Your task to perform on an android device: turn on priority inbox in the gmail app Image 0: 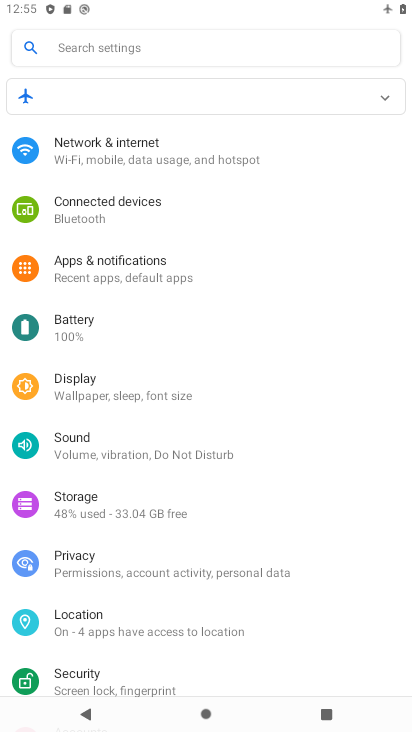
Step 0: press home button
Your task to perform on an android device: turn on priority inbox in the gmail app Image 1: 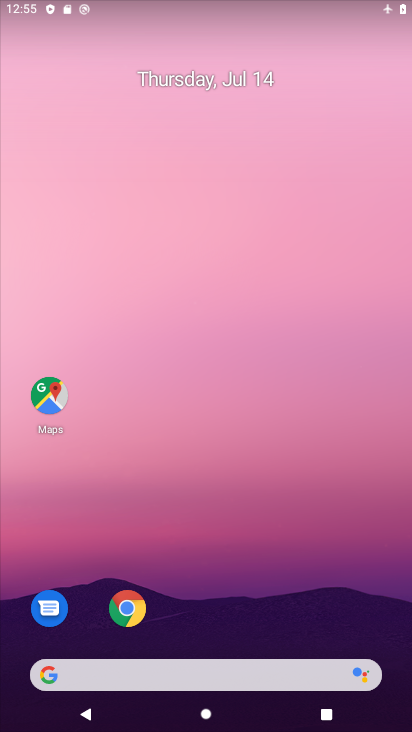
Step 1: drag from (131, 652) to (154, 233)
Your task to perform on an android device: turn on priority inbox in the gmail app Image 2: 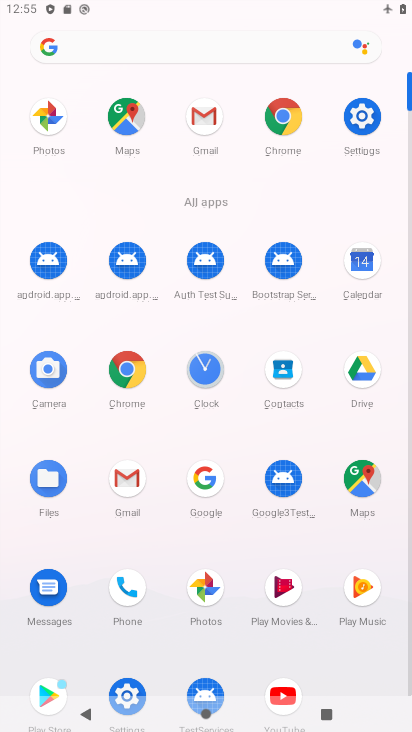
Step 2: click (202, 124)
Your task to perform on an android device: turn on priority inbox in the gmail app Image 3: 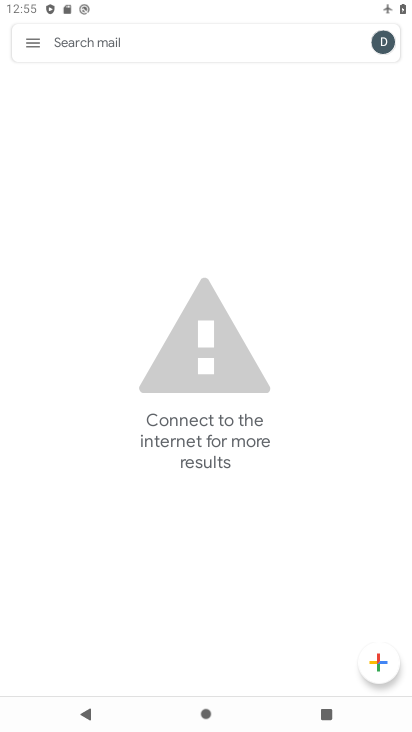
Step 3: click (25, 42)
Your task to perform on an android device: turn on priority inbox in the gmail app Image 4: 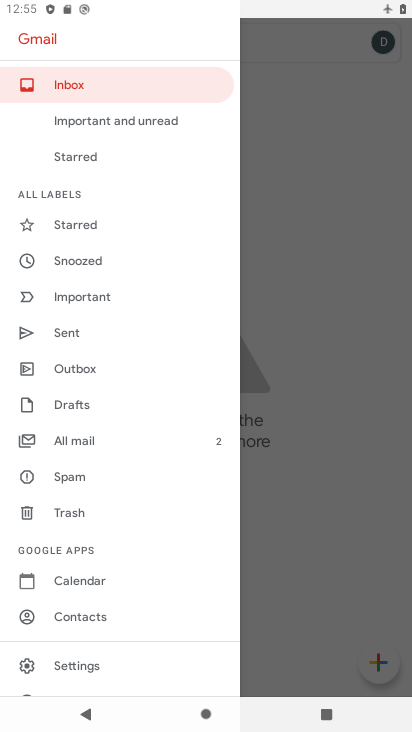
Step 4: click (81, 660)
Your task to perform on an android device: turn on priority inbox in the gmail app Image 5: 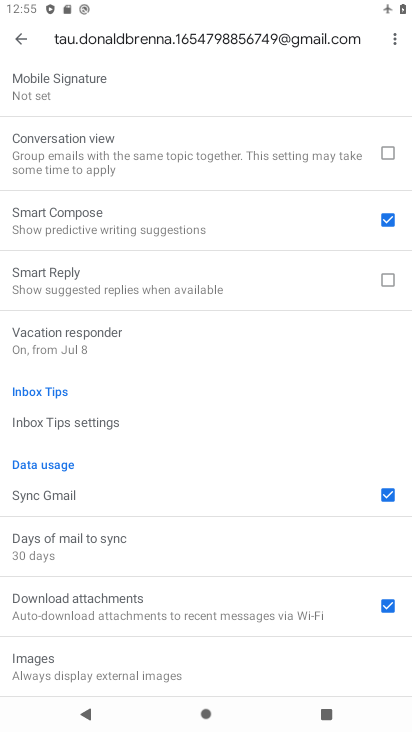
Step 5: drag from (122, 89) to (143, 465)
Your task to perform on an android device: turn on priority inbox in the gmail app Image 6: 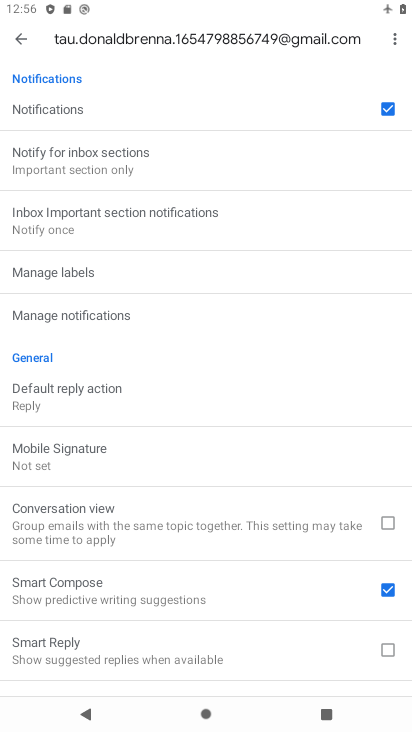
Step 6: drag from (104, 117) to (122, 527)
Your task to perform on an android device: turn on priority inbox in the gmail app Image 7: 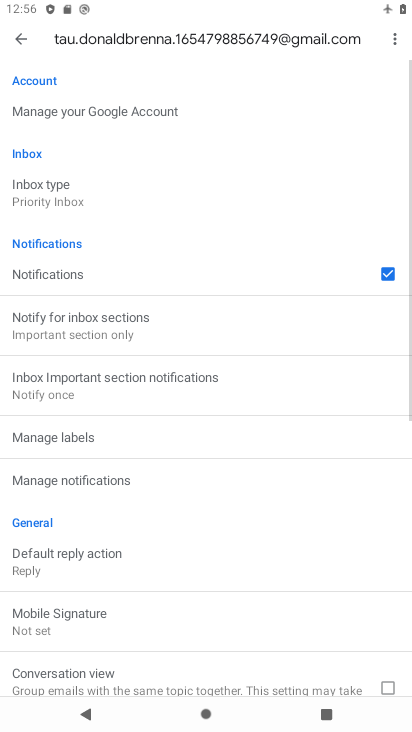
Step 7: click (60, 185)
Your task to perform on an android device: turn on priority inbox in the gmail app Image 8: 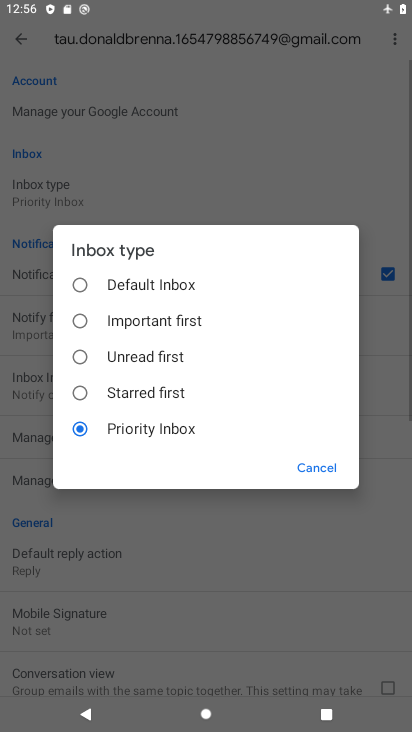
Step 8: click (140, 426)
Your task to perform on an android device: turn on priority inbox in the gmail app Image 9: 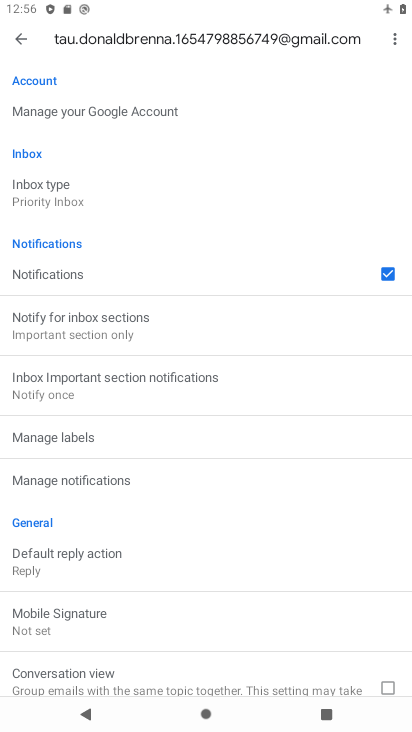
Step 9: task complete